Your task to perform on an android device: toggle translation in the chrome app Image 0: 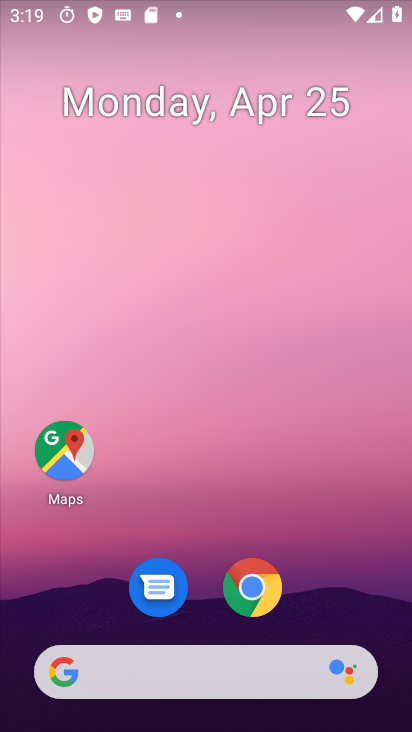
Step 0: drag from (283, 469) to (238, 115)
Your task to perform on an android device: toggle translation in the chrome app Image 1: 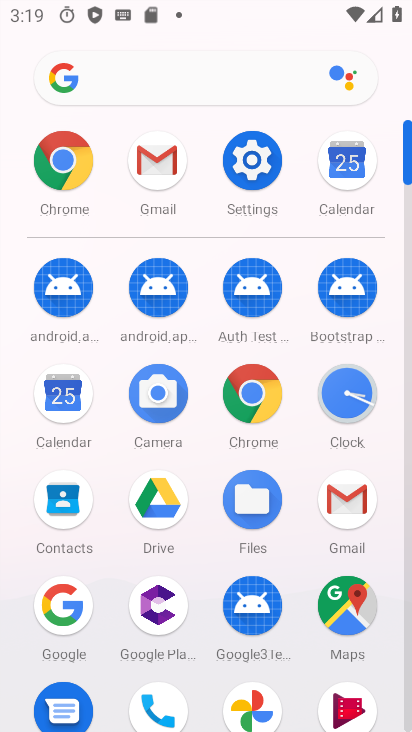
Step 1: click (241, 401)
Your task to perform on an android device: toggle translation in the chrome app Image 2: 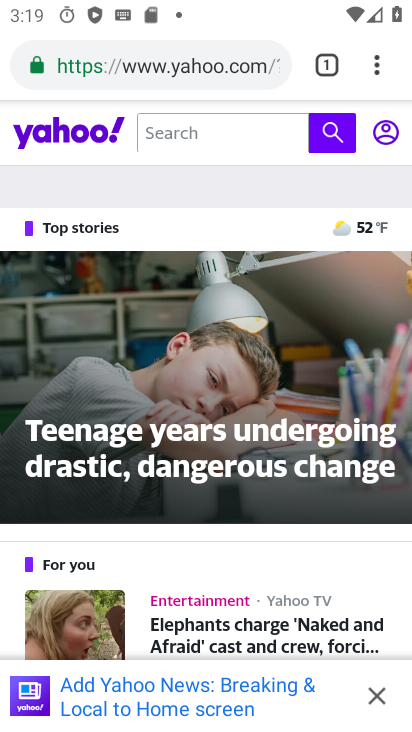
Step 2: drag from (375, 60) to (219, 635)
Your task to perform on an android device: toggle translation in the chrome app Image 3: 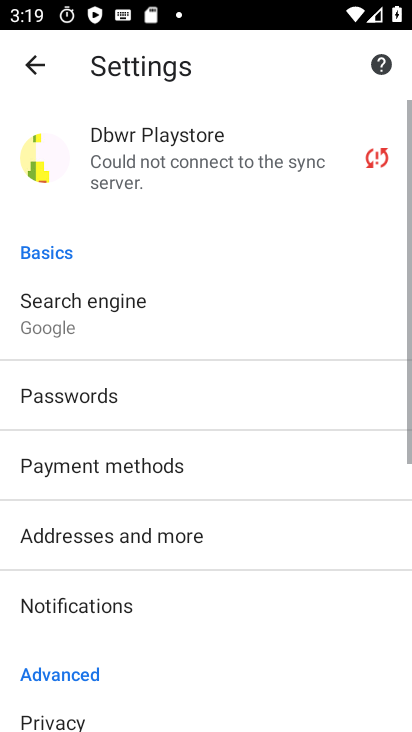
Step 3: drag from (234, 616) to (346, 28)
Your task to perform on an android device: toggle translation in the chrome app Image 4: 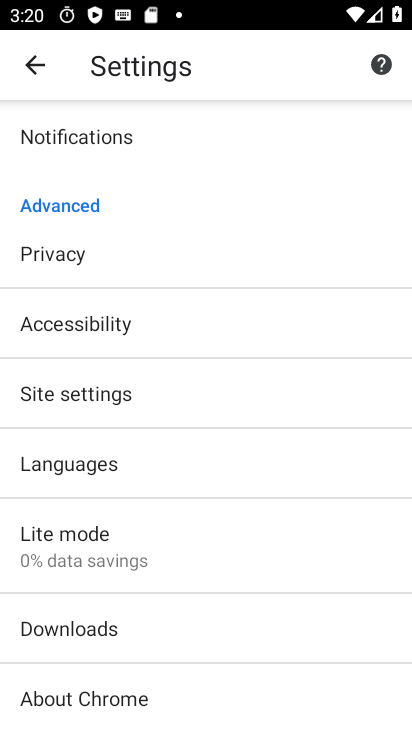
Step 4: click (102, 461)
Your task to perform on an android device: toggle translation in the chrome app Image 5: 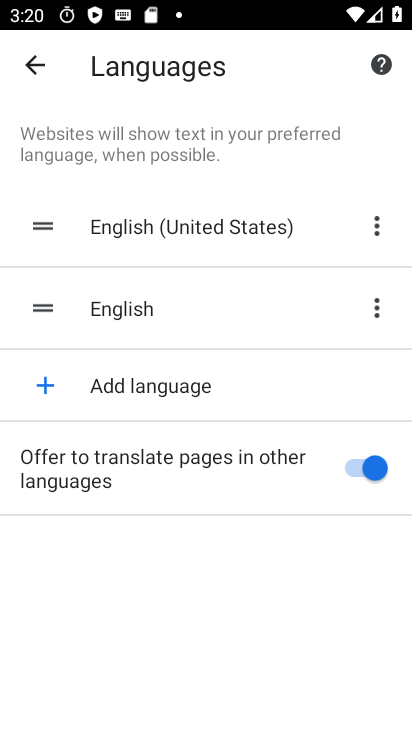
Step 5: click (360, 455)
Your task to perform on an android device: toggle translation in the chrome app Image 6: 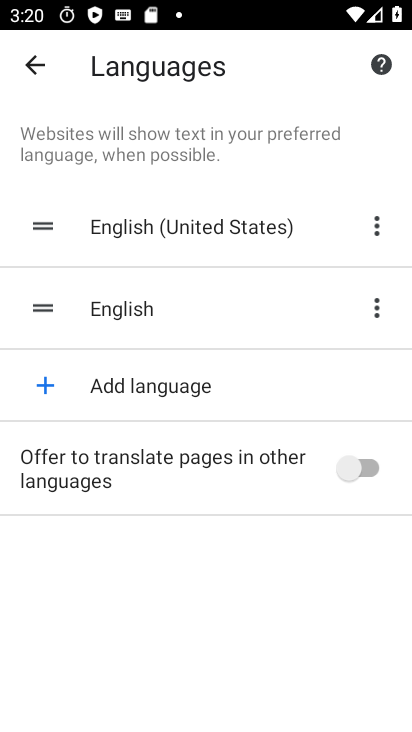
Step 6: task complete